Your task to perform on an android device: Is it going to rain today? Image 0: 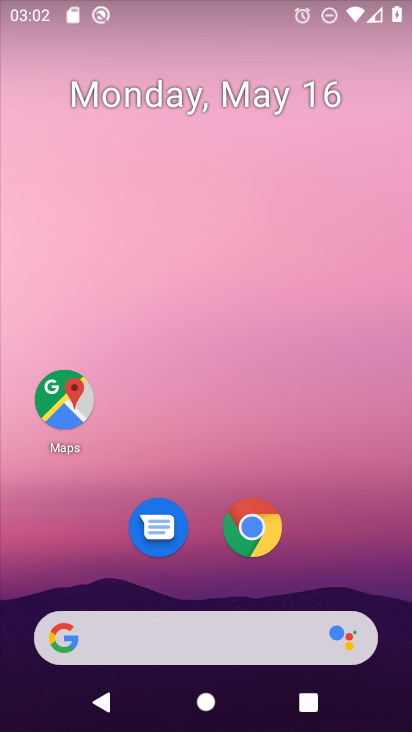
Step 0: click (357, 550)
Your task to perform on an android device: Is it going to rain today? Image 1: 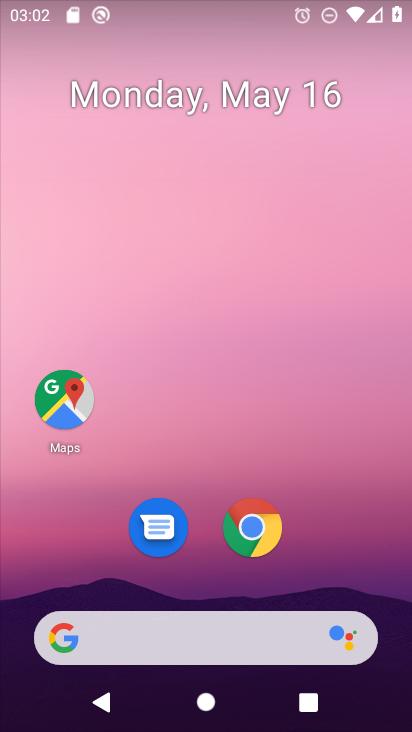
Step 1: click (224, 631)
Your task to perform on an android device: Is it going to rain today? Image 2: 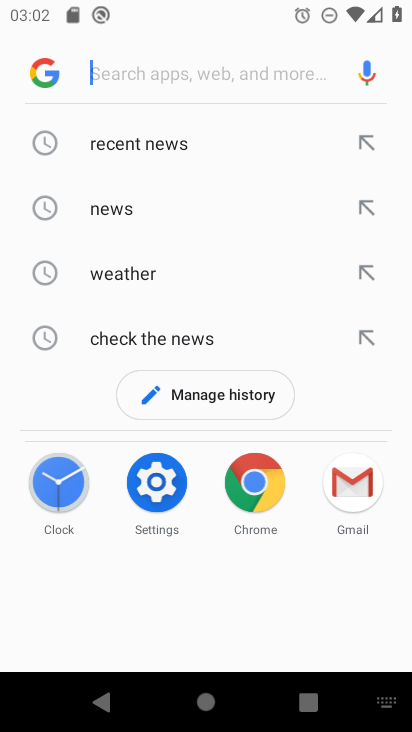
Step 2: click (160, 279)
Your task to perform on an android device: Is it going to rain today? Image 3: 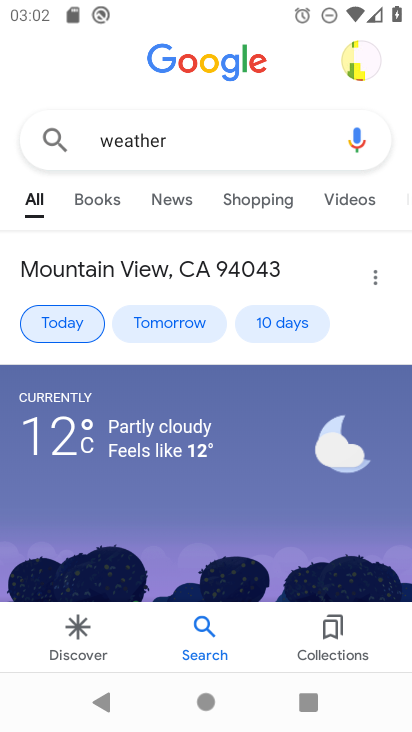
Step 3: task complete